Your task to perform on an android device: turn off notifications in google photos Image 0: 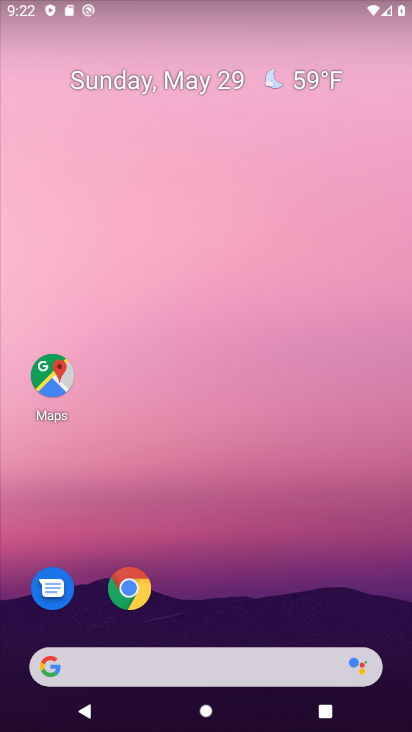
Step 0: drag from (250, 605) to (211, 131)
Your task to perform on an android device: turn off notifications in google photos Image 1: 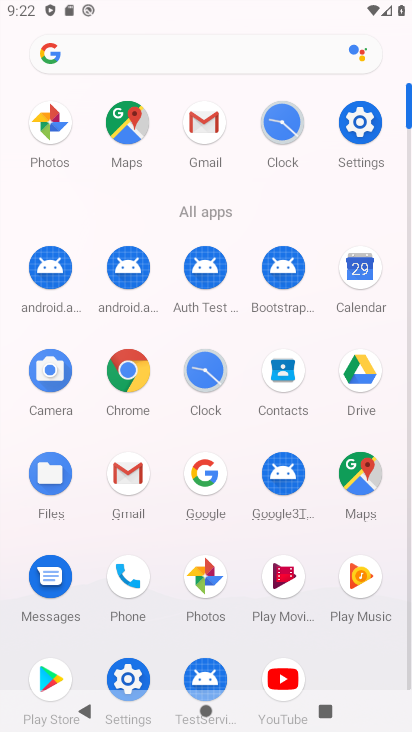
Step 1: click (59, 127)
Your task to perform on an android device: turn off notifications in google photos Image 2: 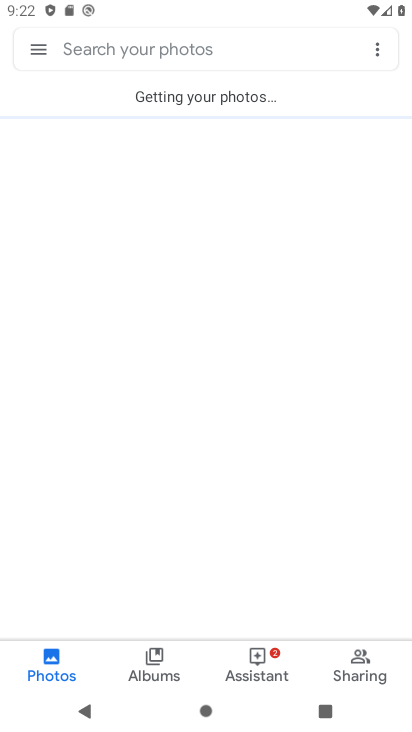
Step 2: click (46, 55)
Your task to perform on an android device: turn off notifications in google photos Image 3: 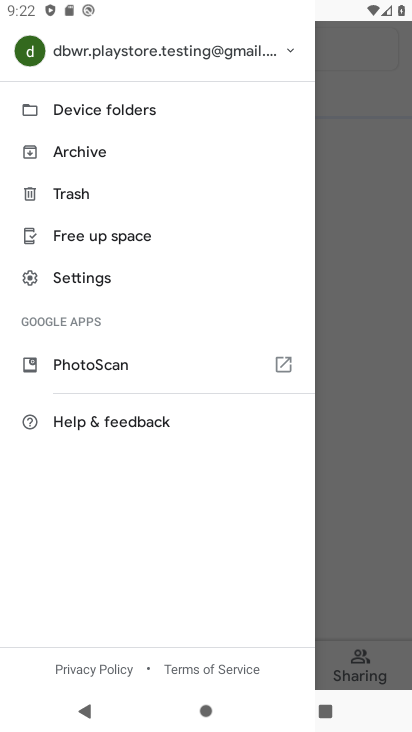
Step 3: click (105, 284)
Your task to perform on an android device: turn off notifications in google photos Image 4: 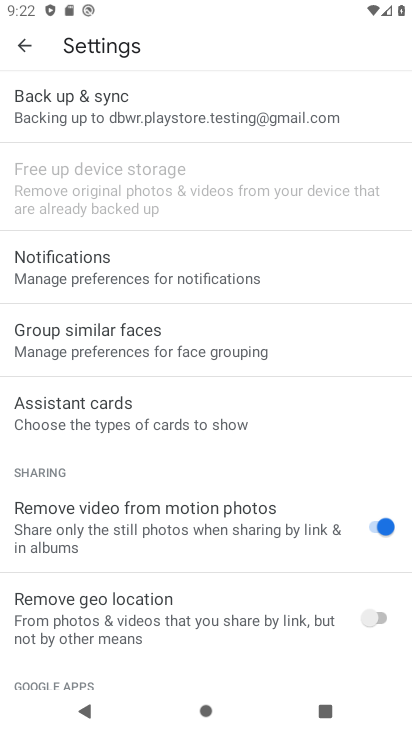
Step 4: click (159, 280)
Your task to perform on an android device: turn off notifications in google photos Image 5: 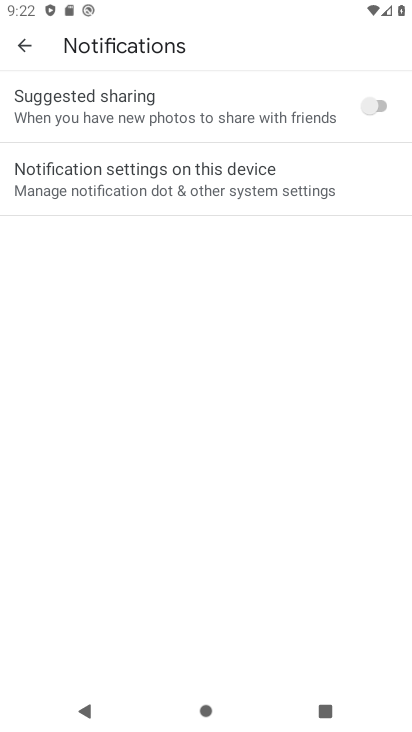
Step 5: click (384, 166)
Your task to perform on an android device: turn off notifications in google photos Image 6: 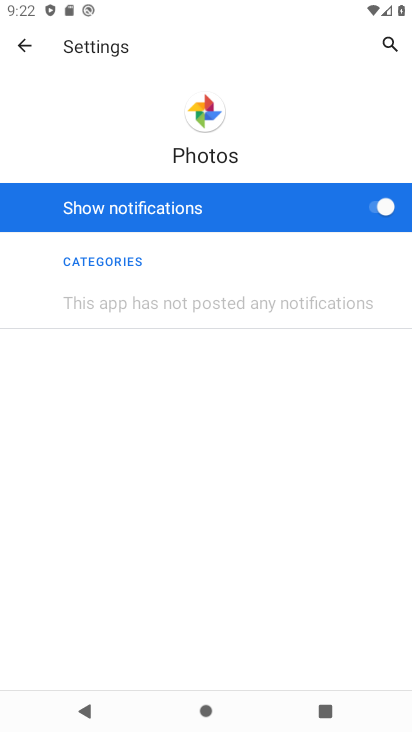
Step 6: click (384, 206)
Your task to perform on an android device: turn off notifications in google photos Image 7: 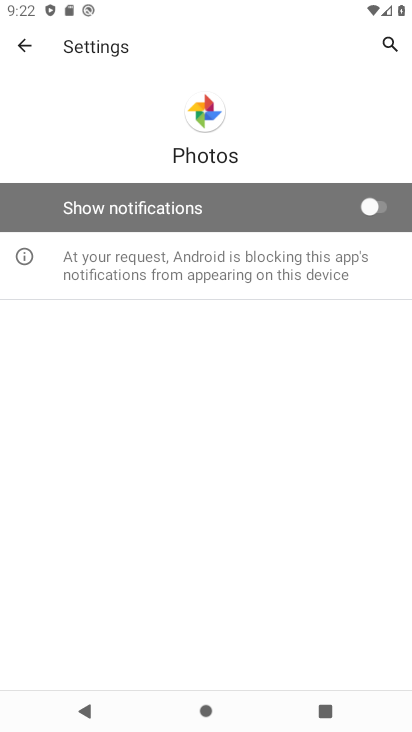
Step 7: task complete